Your task to perform on an android device: Show me popular videos on Youtube Image 0: 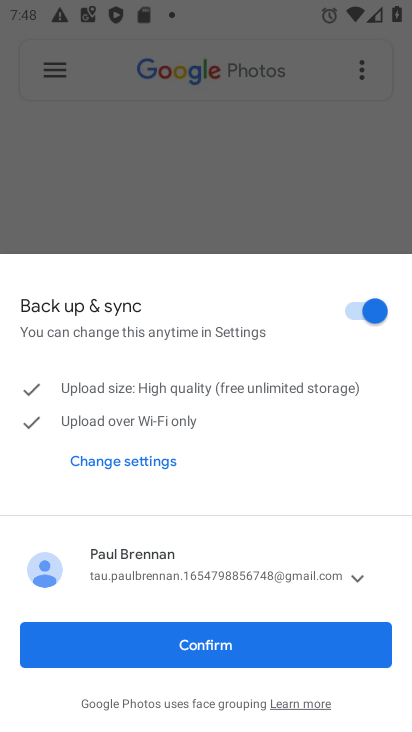
Step 0: press home button
Your task to perform on an android device: Show me popular videos on Youtube Image 1: 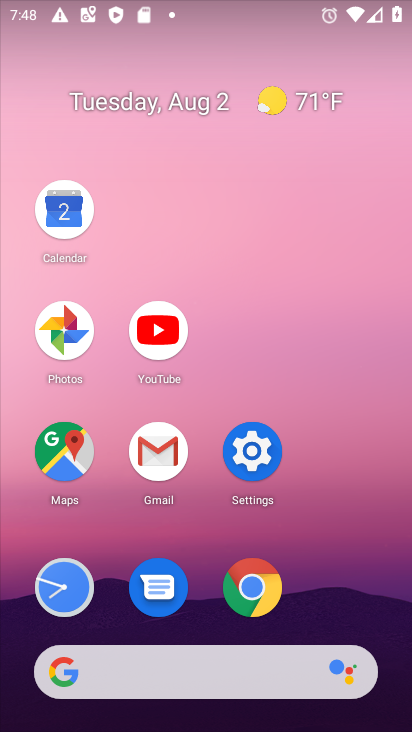
Step 1: click (159, 332)
Your task to perform on an android device: Show me popular videos on Youtube Image 2: 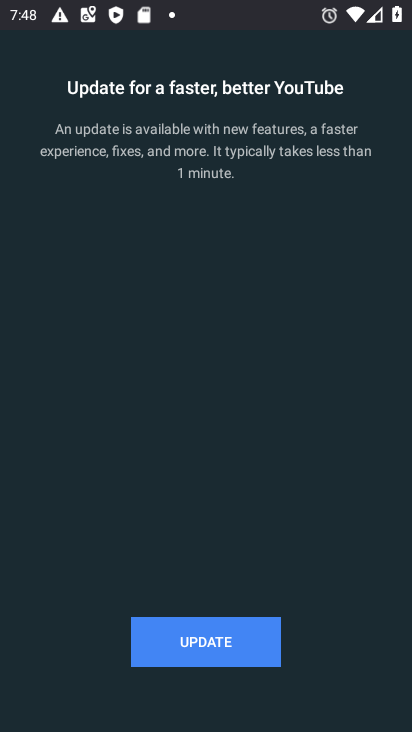
Step 2: click (227, 642)
Your task to perform on an android device: Show me popular videos on Youtube Image 3: 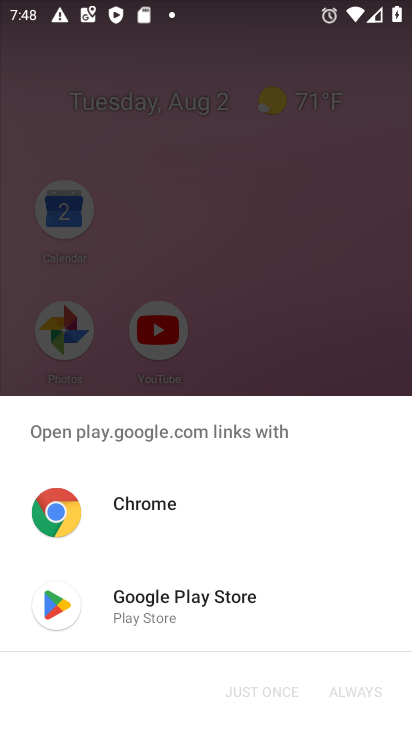
Step 3: click (186, 595)
Your task to perform on an android device: Show me popular videos on Youtube Image 4: 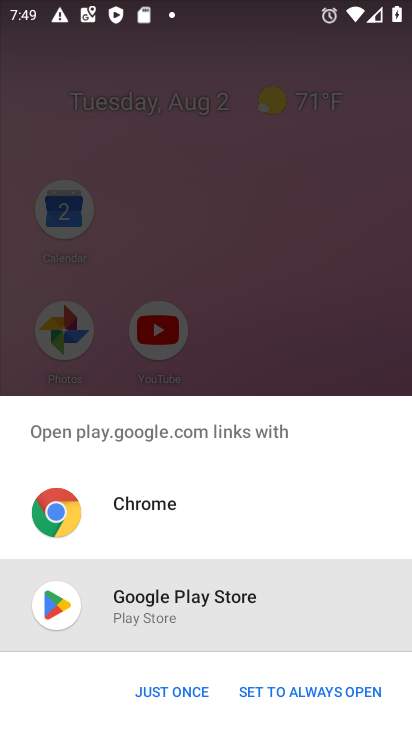
Step 4: click (179, 690)
Your task to perform on an android device: Show me popular videos on Youtube Image 5: 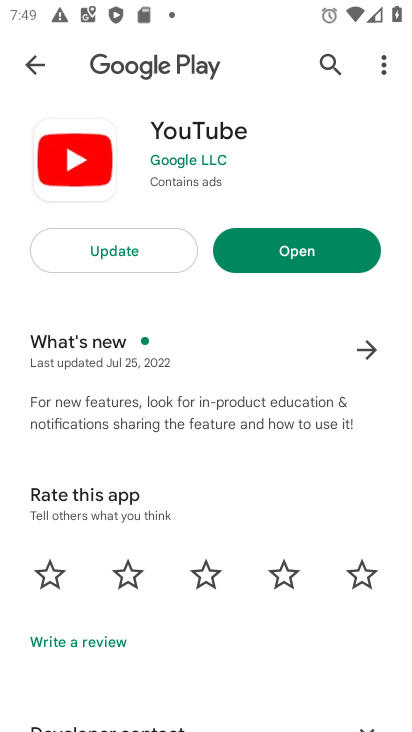
Step 5: click (124, 258)
Your task to perform on an android device: Show me popular videos on Youtube Image 6: 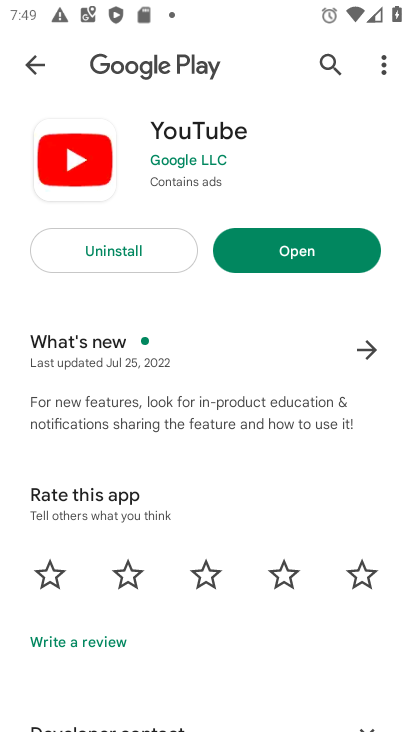
Step 6: click (273, 253)
Your task to perform on an android device: Show me popular videos on Youtube Image 7: 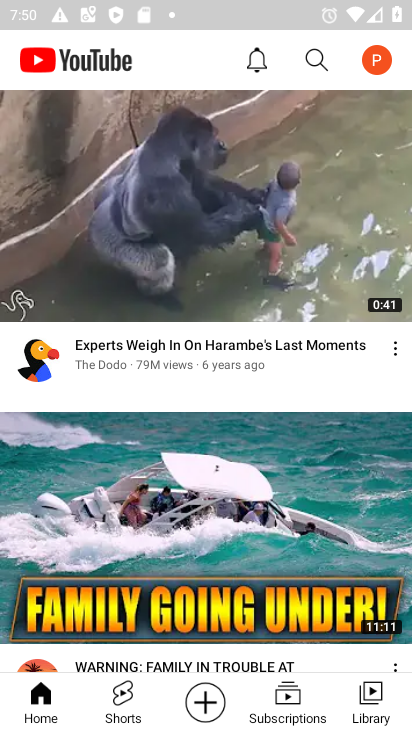
Step 7: click (113, 696)
Your task to perform on an android device: Show me popular videos on Youtube Image 8: 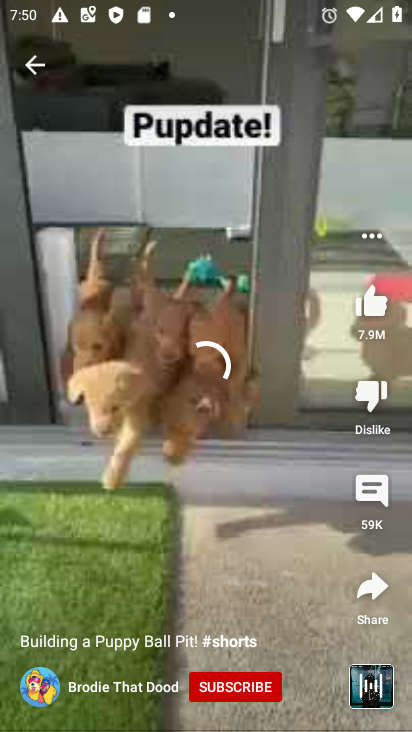
Step 8: task complete